Your task to perform on an android device: find snoozed emails in the gmail app Image 0: 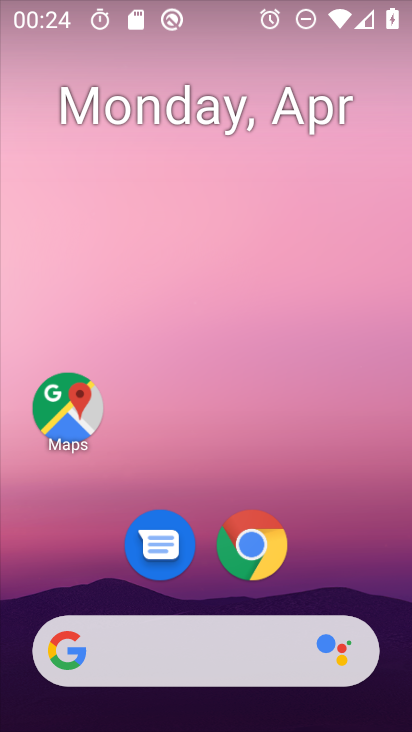
Step 0: drag from (336, 487) to (327, 171)
Your task to perform on an android device: find snoozed emails in the gmail app Image 1: 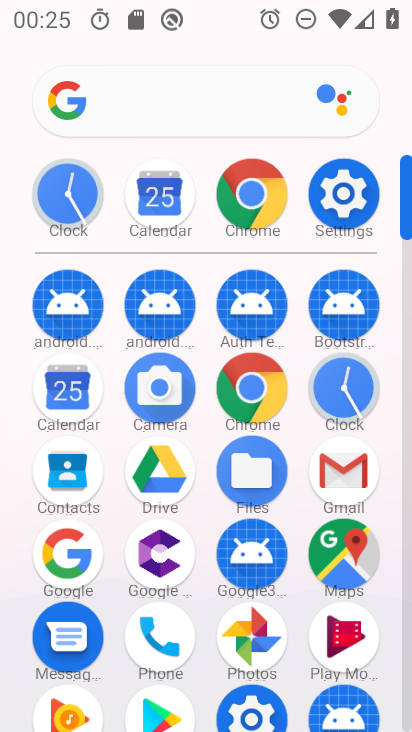
Step 1: click (353, 470)
Your task to perform on an android device: find snoozed emails in the gmail app Image 2: 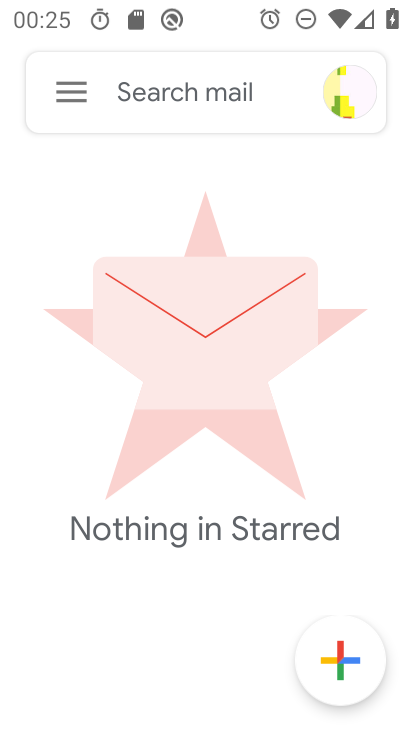
Step 2: click (78, 85)
Your task to perform on an android device: find snoozed emails in the gmail app Image 3: 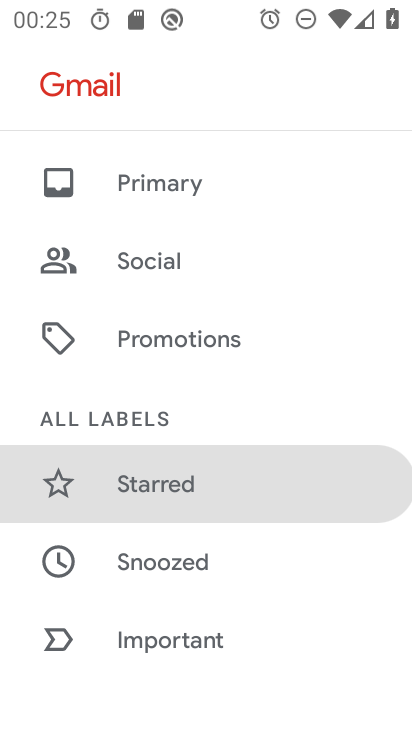
Step 3: drag from (286, 630) to (292, 451)
Your task to perform on an android device: find snoozed emails in the gmail app Image 4: 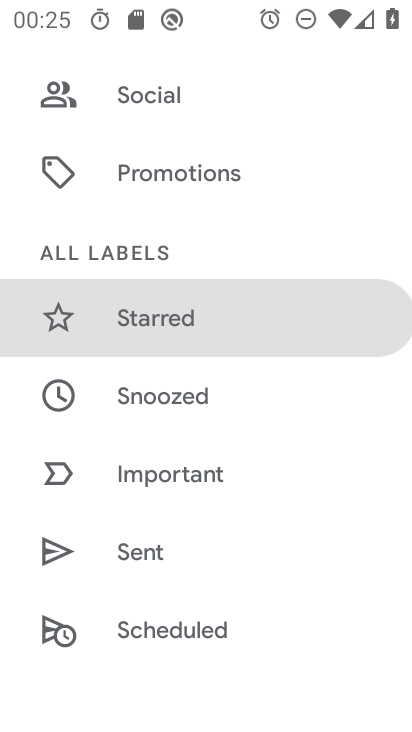
Step 4: click (224, 392)
Your task to perform on an android device: find snoozed emails in the gmail app Image 5: 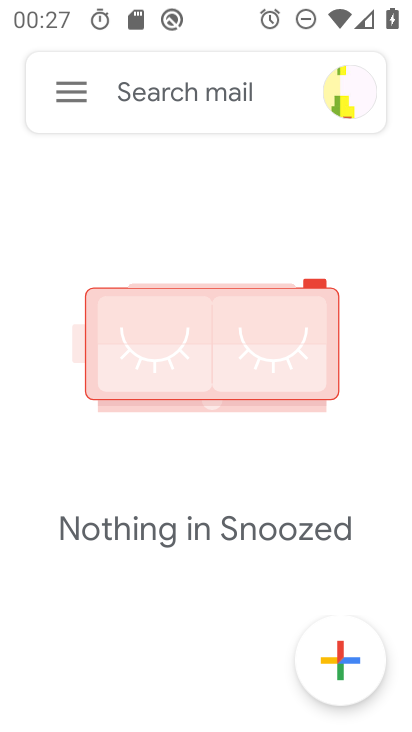
Step 5: click (84, 92)
Your task to perform on an android device: find snoozed emails in the gmail app Image 6: 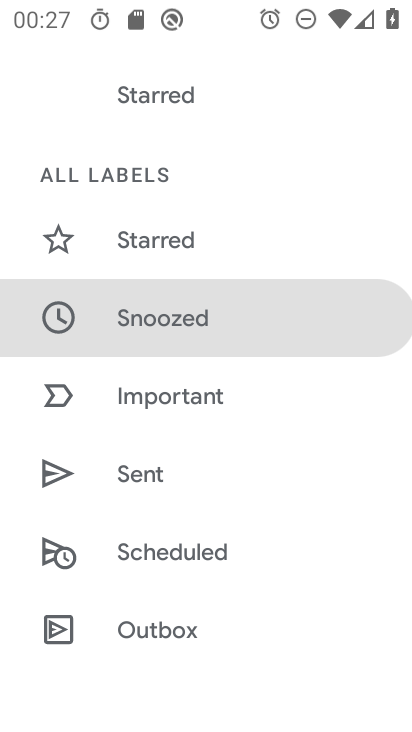
Step 6: drag from (236, 622) to (266, 278)
Your task to perform on an android device: find snoozed emails in the gmail app Image 7: 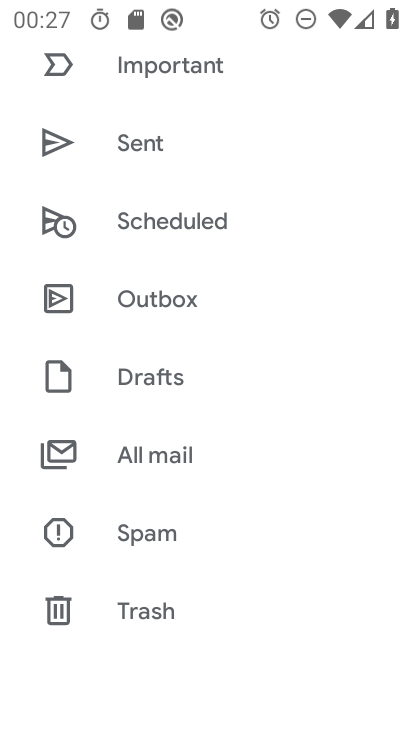
Step 7: drag from (231, 156) to (155, 654)
Your task to perform on an android device: find snoozed emails in the gmail app Image 8: 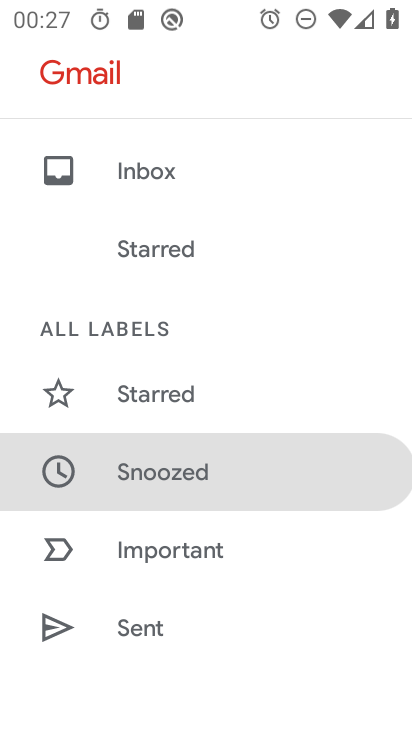
Step 8: click (186, 473)
Your task to perform on an android device: find snoozed emails in the gmail app Image 9: 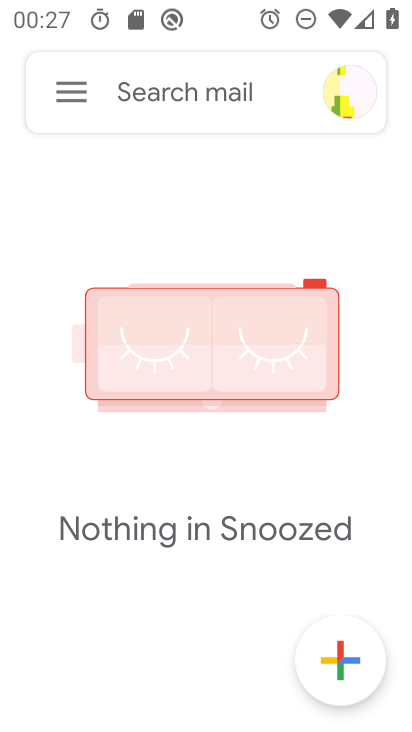
Step 9: task complete